Your task to perform on an android device: Go to privacy settings Image 0: 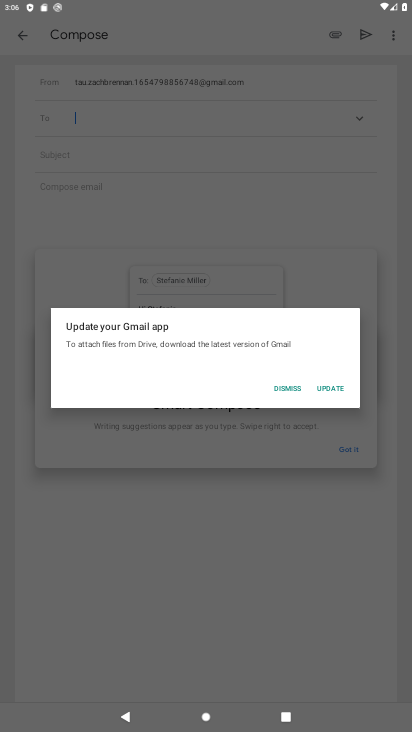
Step 0: press home button
Your task to perform on an android device: Go to privacy settings Image 1: 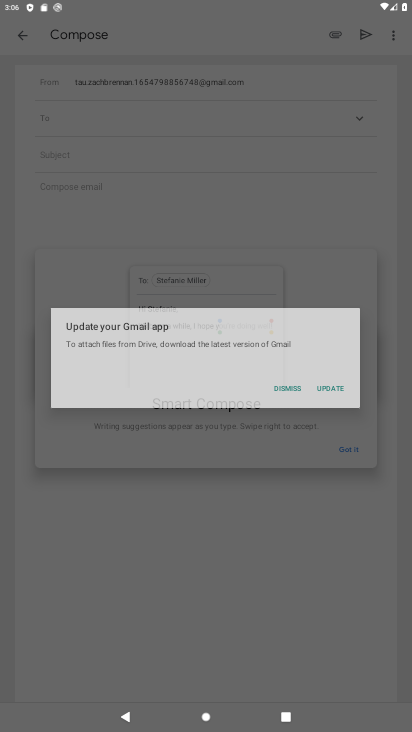
Step 1: drag from (175, 591) to (285, 89)
Your task to perform on an android device: Go to privacy settings Image 2: 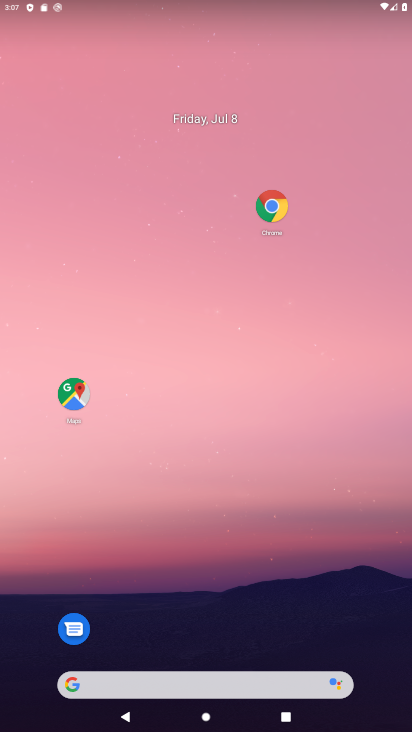
Step 2: drag from (245, 541) to (249, 156)
Your task to perform on an android device: Go to privacy settings Image 3: 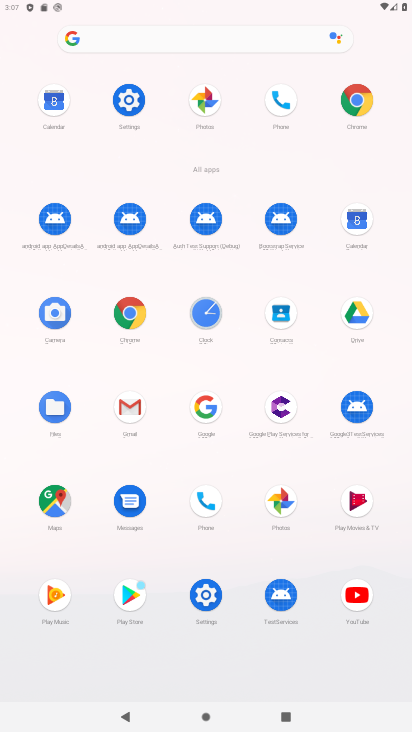
Step 3: click (205, 626)
Your task to perform on an android device: Go to privacy settings Image 4: 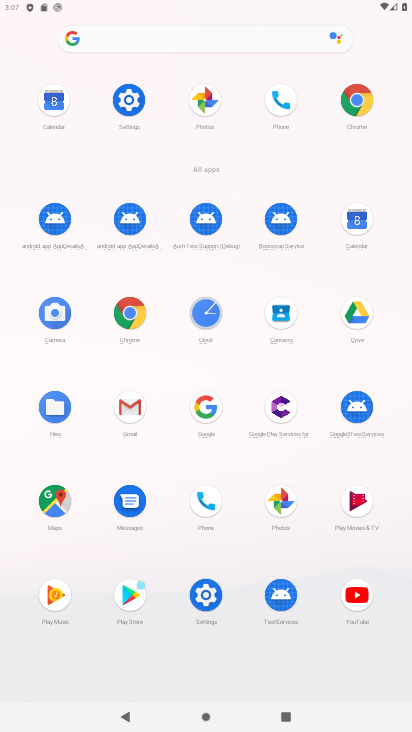
Step 4: click (203, 600)
Your task to perform on an android device: Go to privacy settings Image 5: 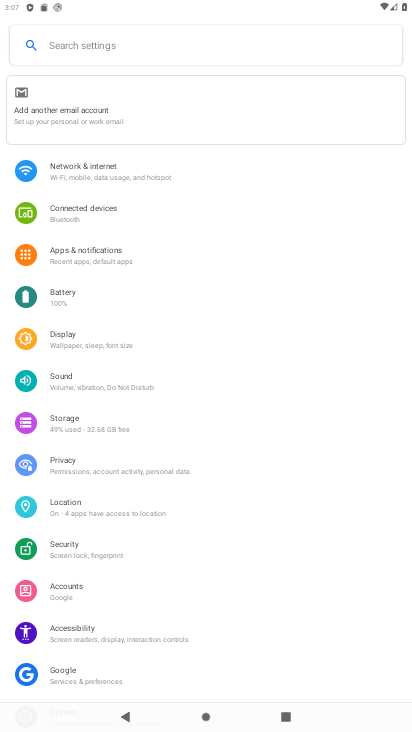
Step 5: click (79, 458)
Your task to perform on an android device: Go to privacy settings Image 6: 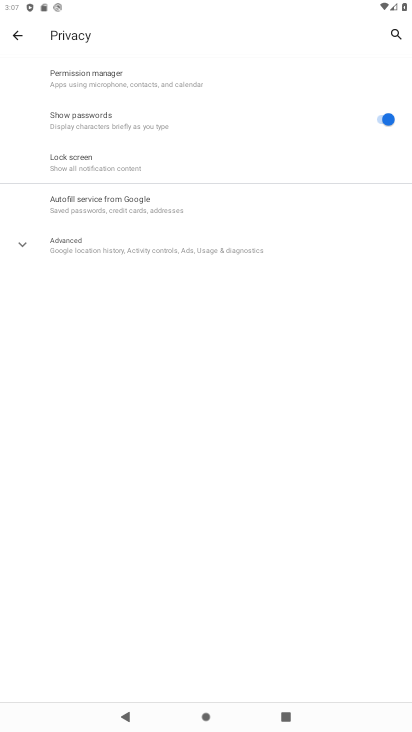
Step 6: task complete